Your task to perform on an android device: add a contact Image 0: 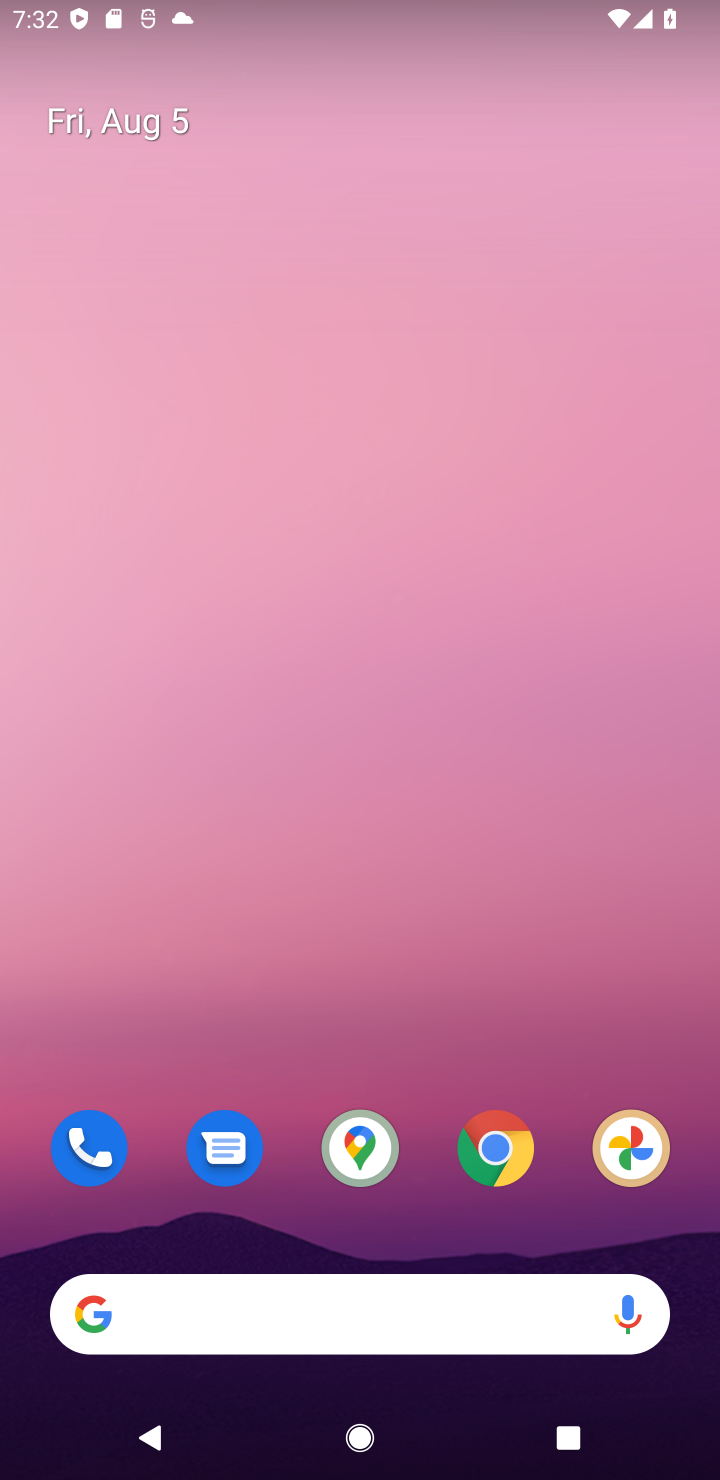
Step 0: drag from (297, 1237) to (248, 100)
Your task to perform on an android device: add a contact Image 1: 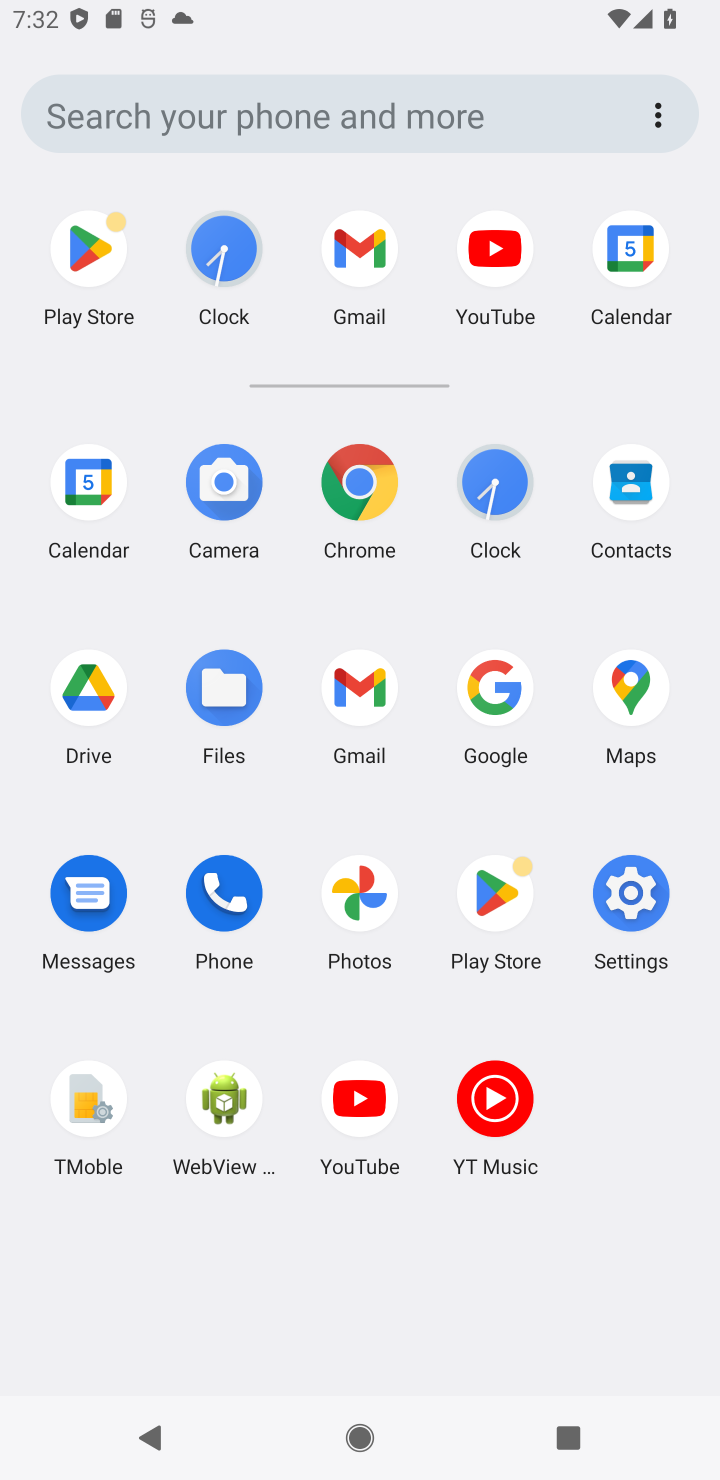
Step 1: click (615, 533)
Your task to perform on an android device: add a contact Image 2: 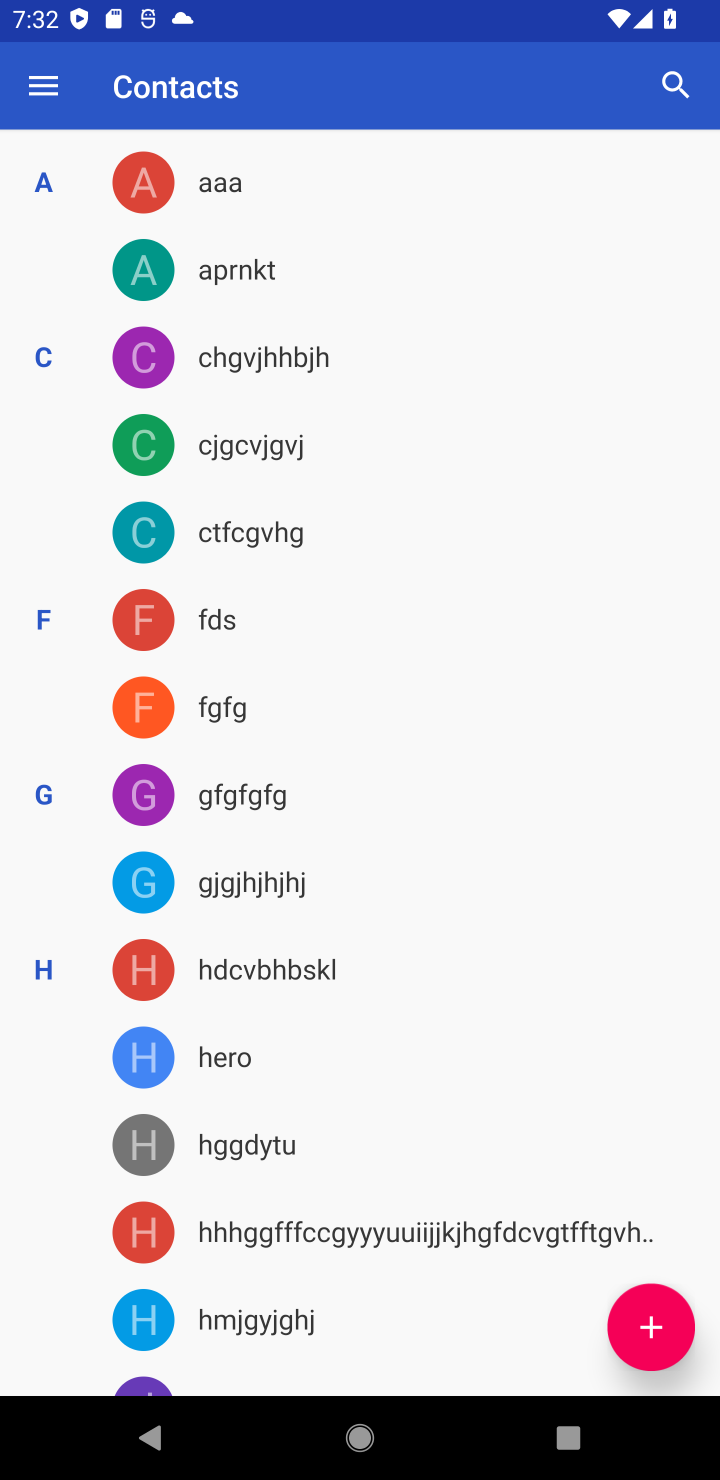
Step 2: click (662, 1304)
Your task to perform on an android device: add a contact Image 3: 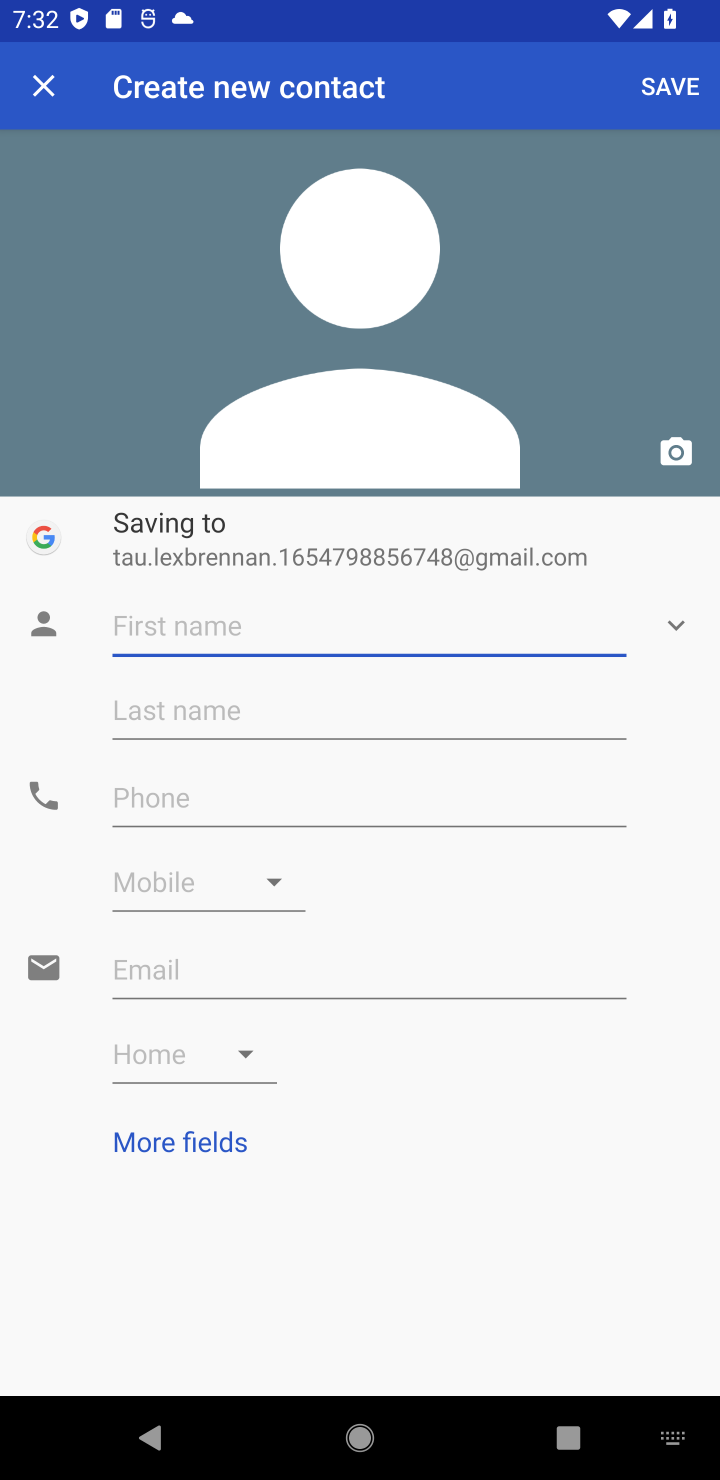
Step 3: type "dssfcx"
Your task to perform on an android device: add a contact Image 4: 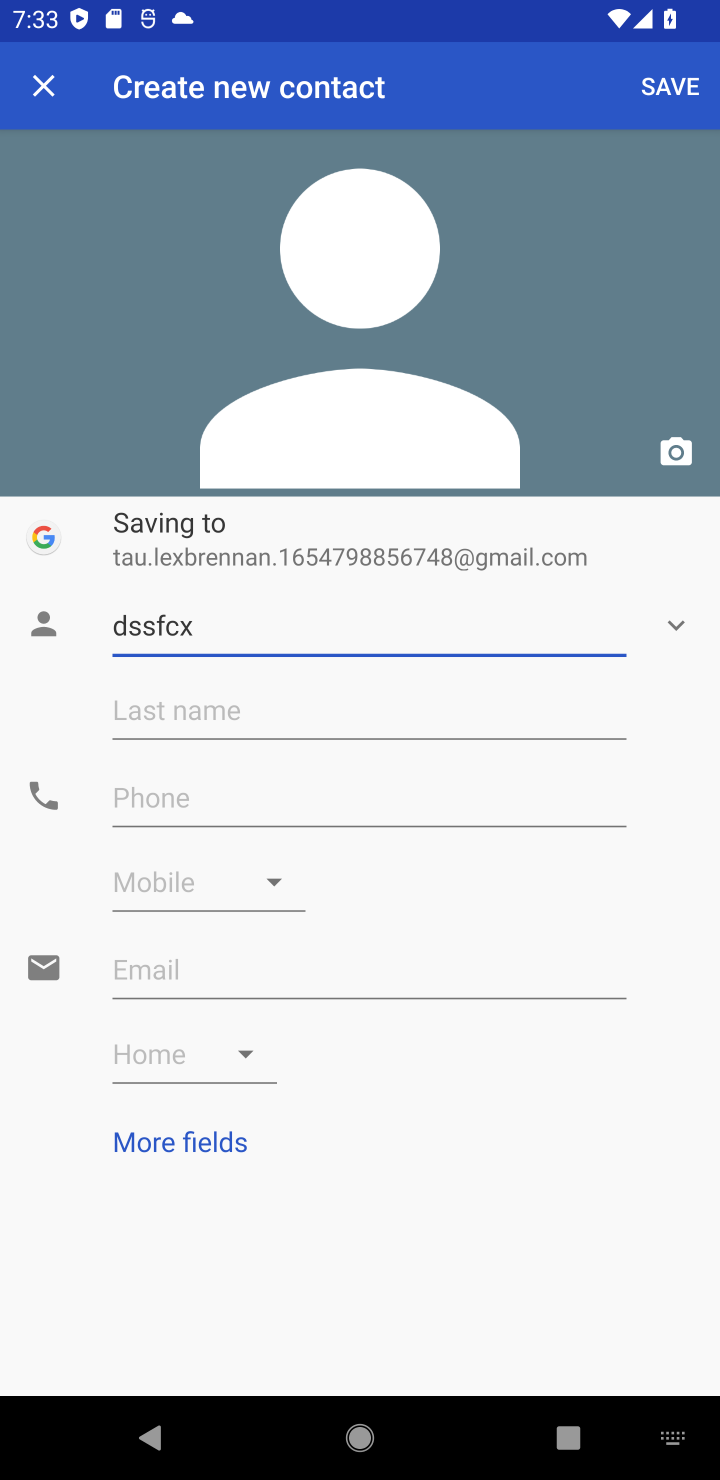
Step 4: click (266, 716)
Your task to perform on an android device: add a contact Image 5: 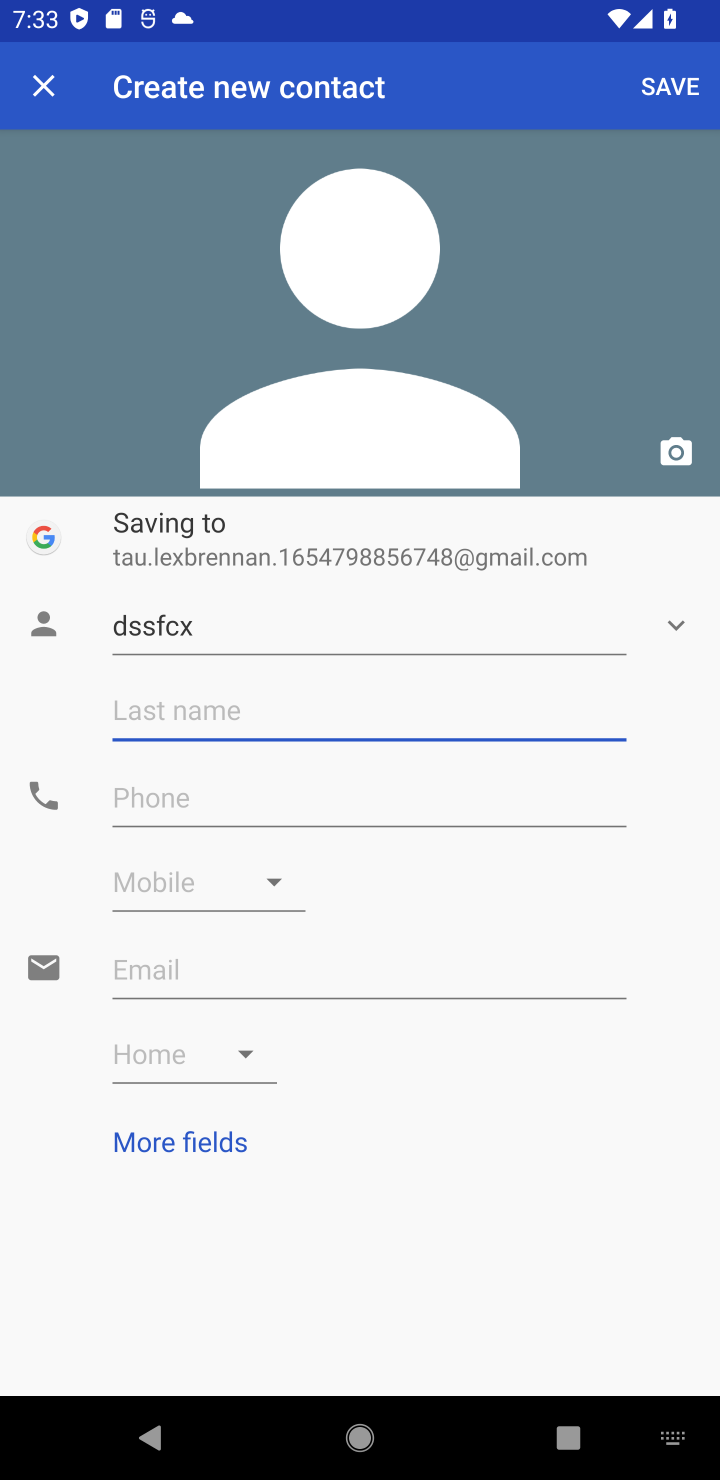
Step 5: type "zxcsdcax"
Your task to perform on an android device: add a contact Image 6: 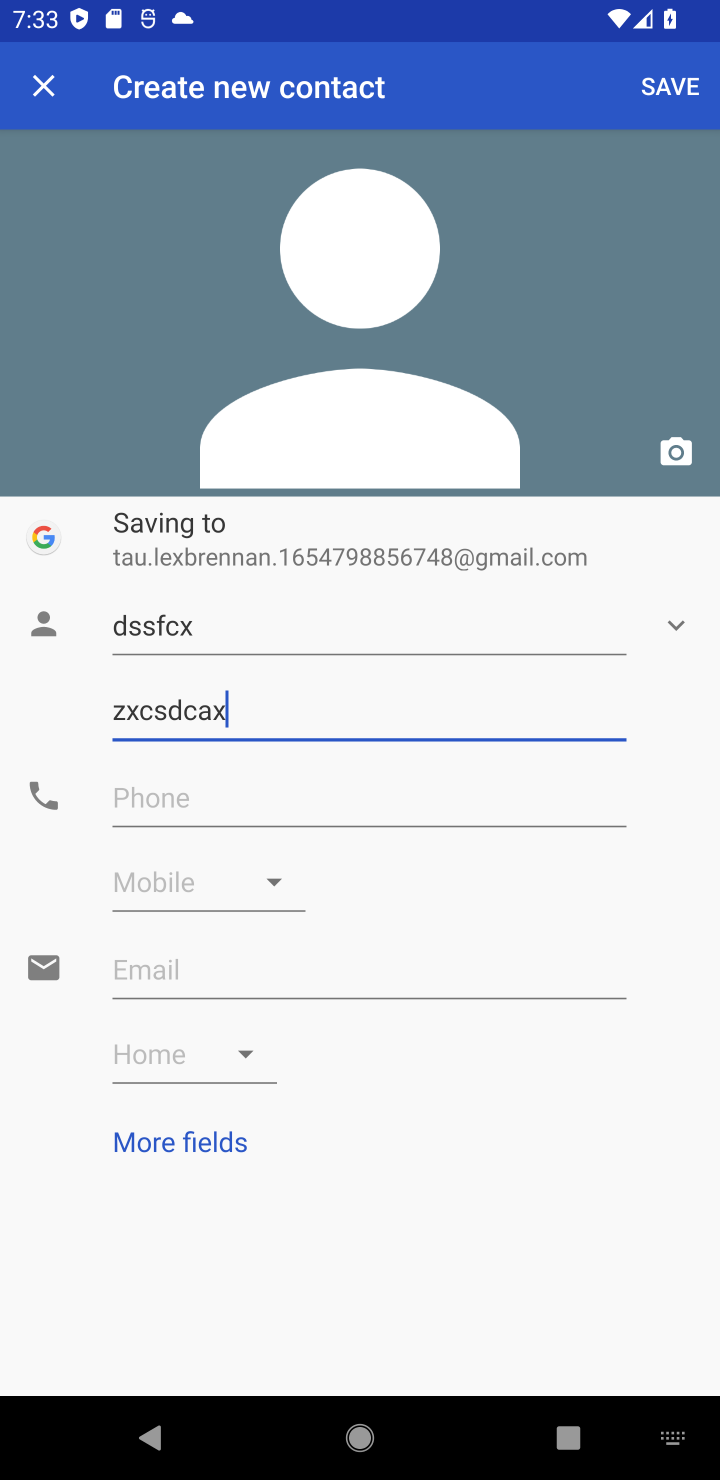
Step 6: click (320, 793)
Your task to perform on an android device: add a contact Image 7: 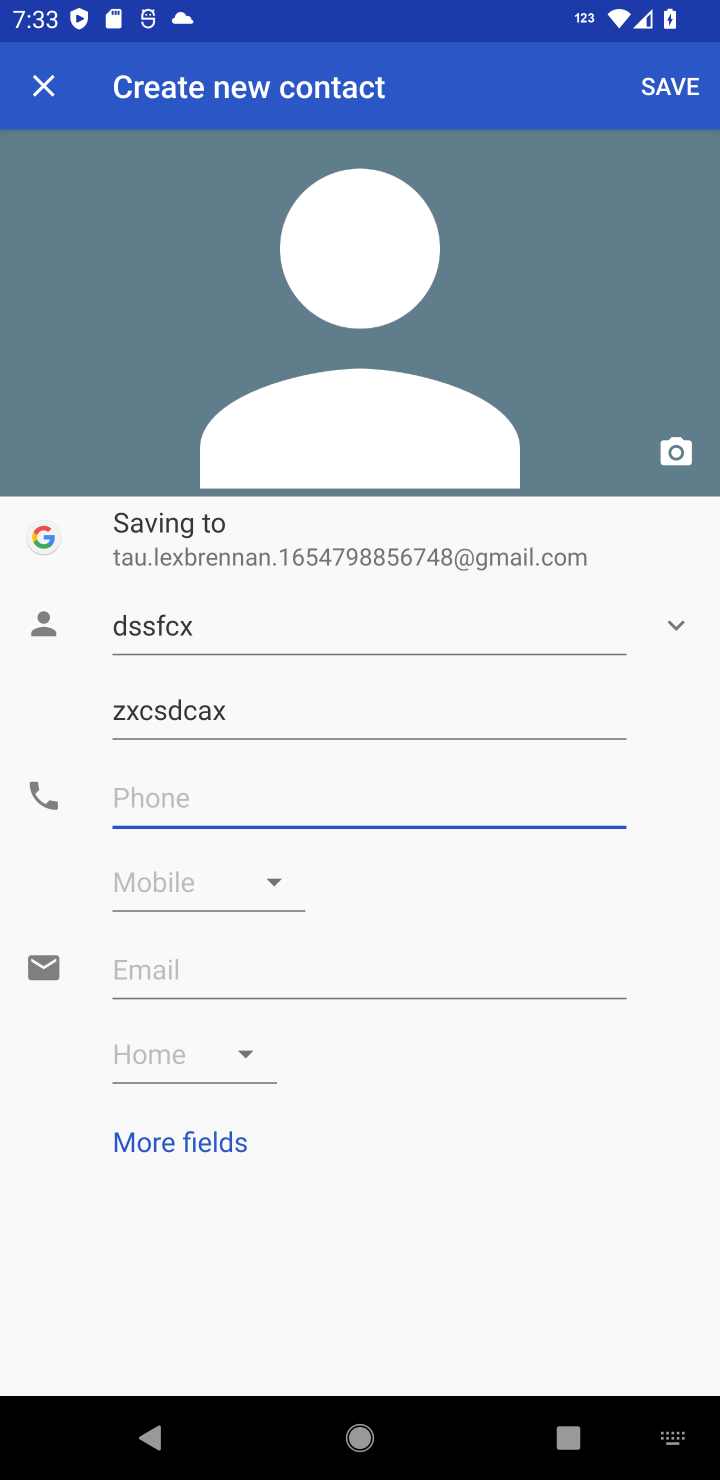
Step 7: type "45678987654"
Your task to perform on an android device: add a contact Image 8: 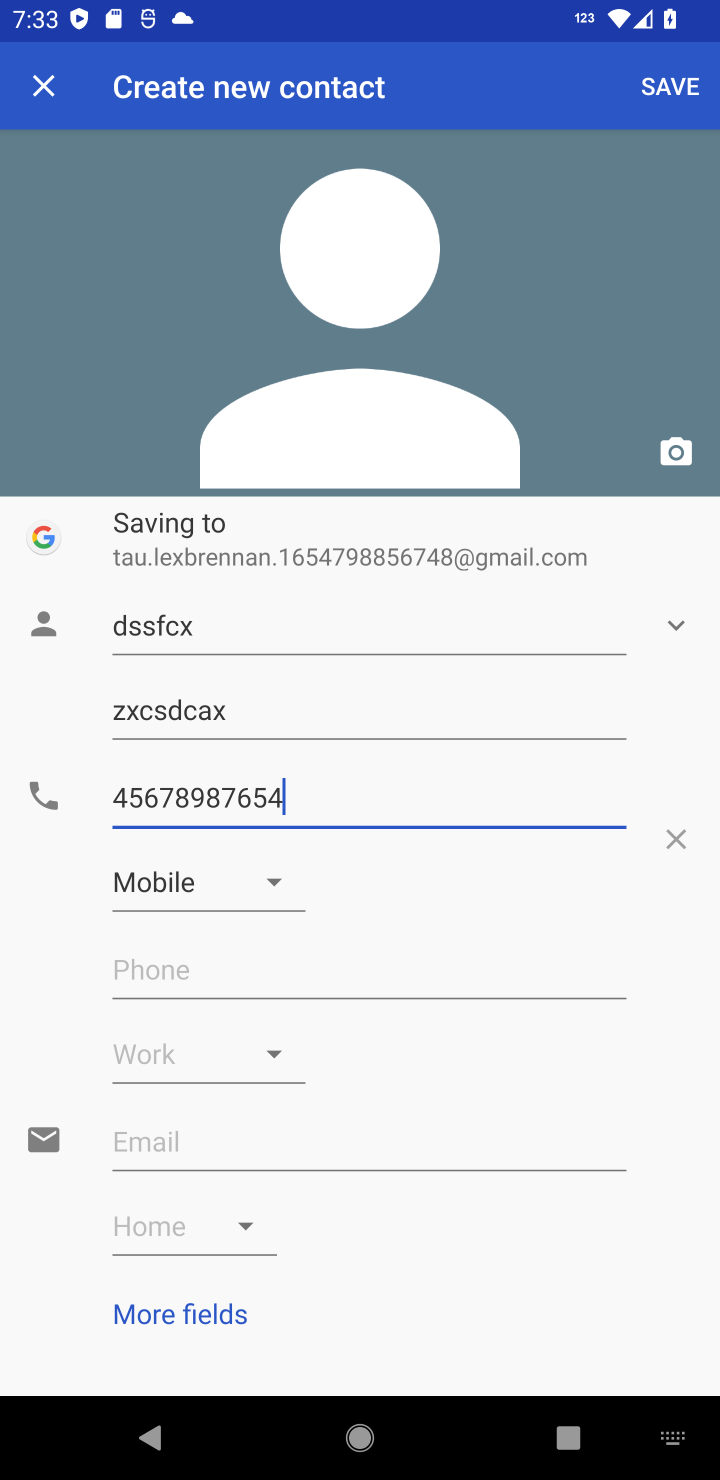
Step 8: click (646, 82)
Your task to perform on an android device: add a contact Image 9: 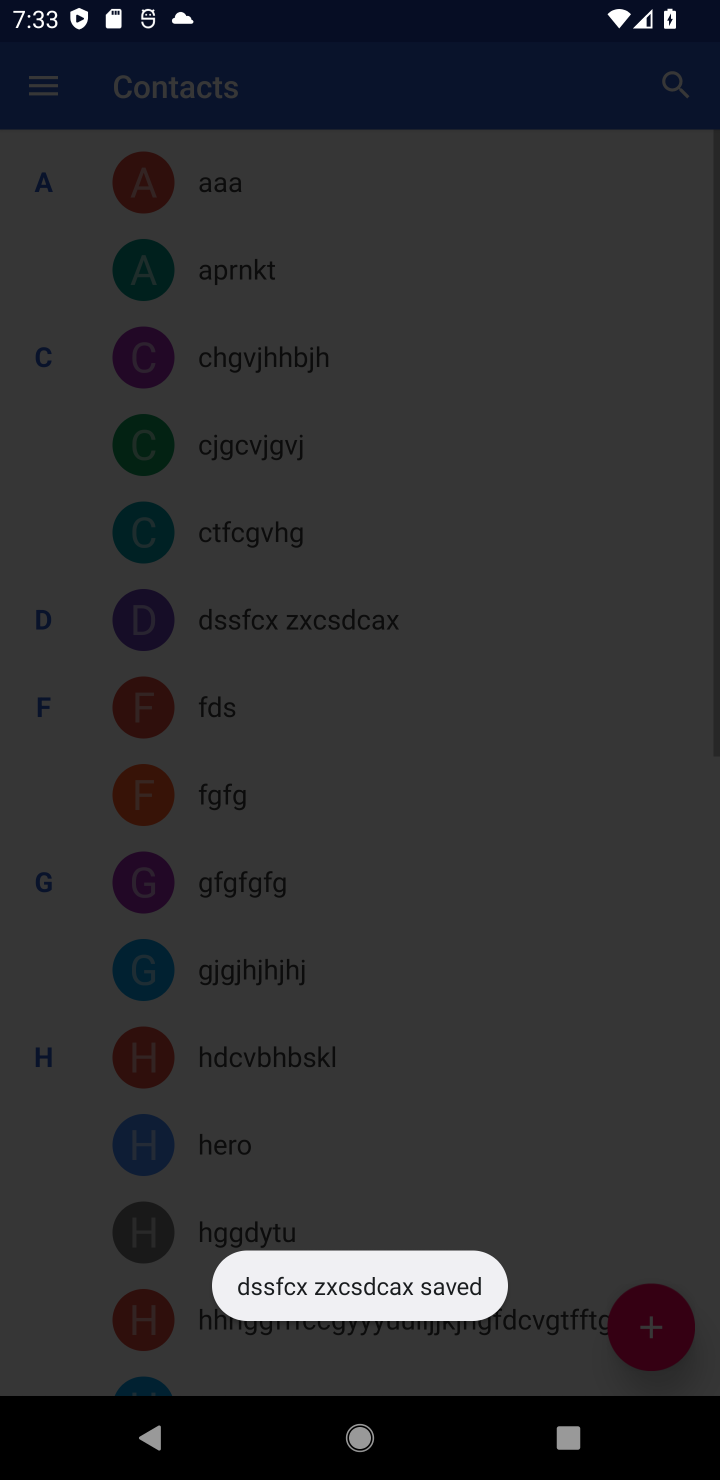
Step 9: task complete